Your task to perform on an android device: open chrome privacy settings Image 0: 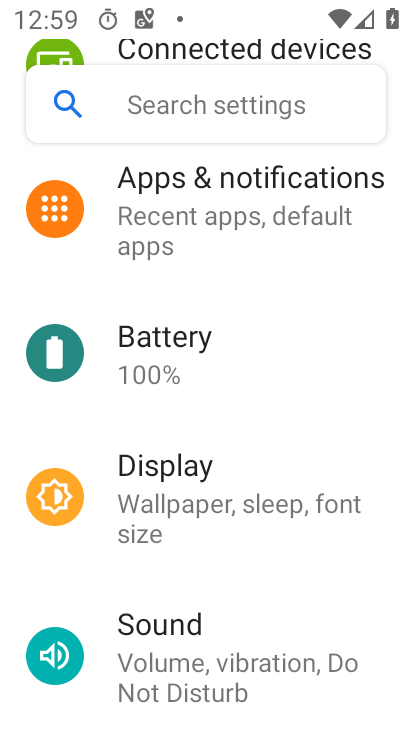
Step 0: press home button
Your task to perform on an android device: open chrome privacy settings Image 1: 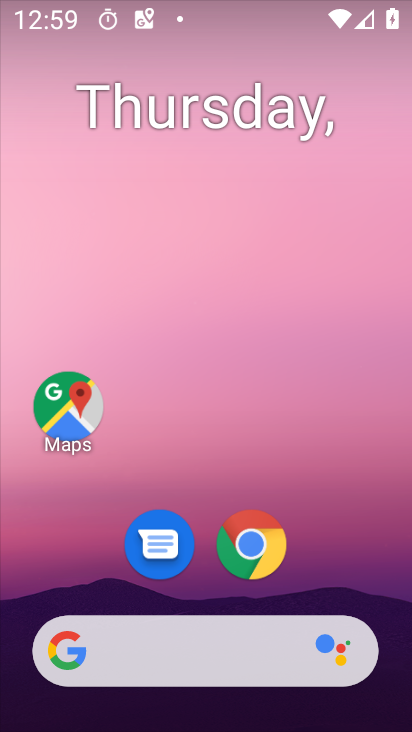
Step 1: click (266, 556)
Your task to perform on an android device: open chrome privacy settings Image 2: 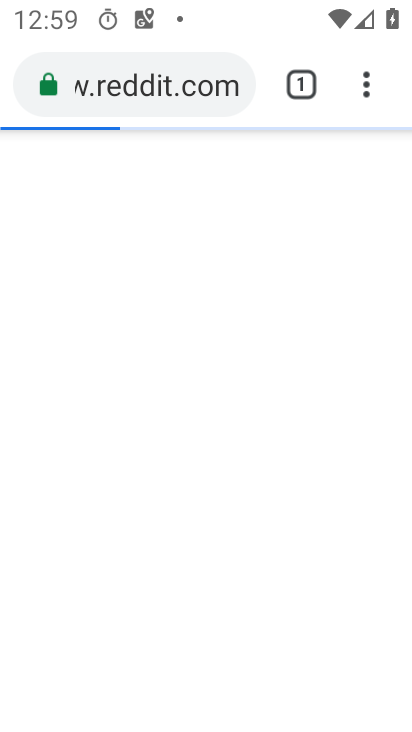
Step 2: click (360, 76)
Your task to perform on an android device: open chrome privacy settings Image 3: 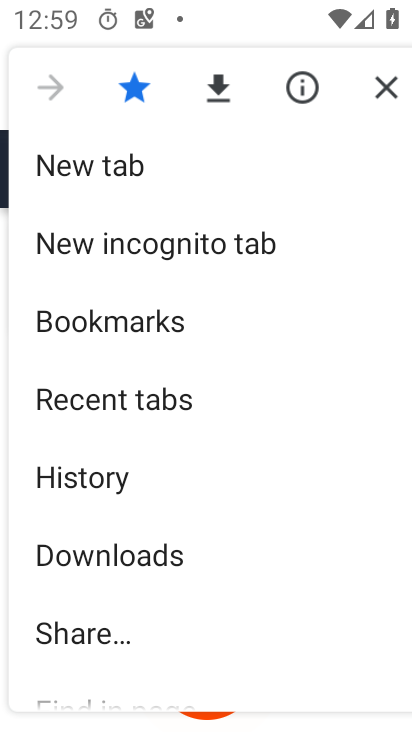
Step 3: drag from (142, 646) to (221, 177)
Your task to perform on an android device: open chrome privacy settings Image 4: 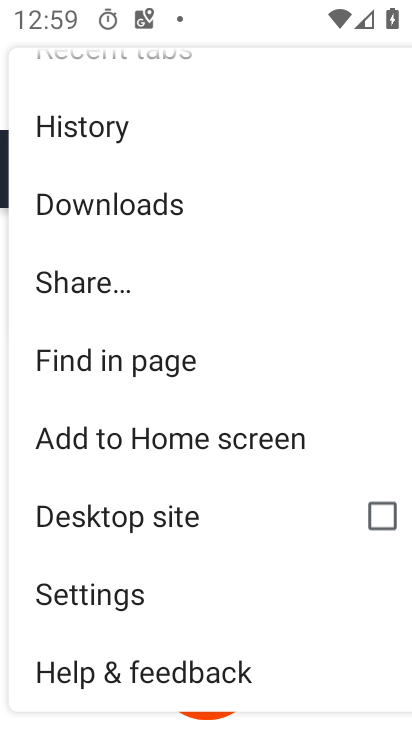
Step 4: click (95, 609)
Your task to perform on an android device: open chrome privacy settings Image 5: 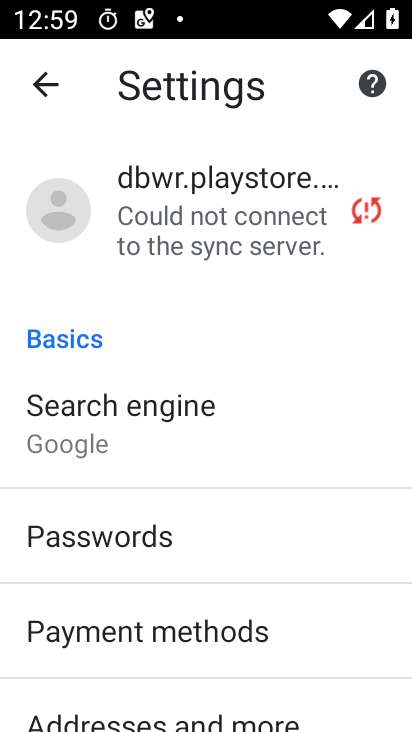
Step 5: drag from (70, 663) to (217, 249)
Your task to perform on an android device: open chrome privacy settings Image 6: 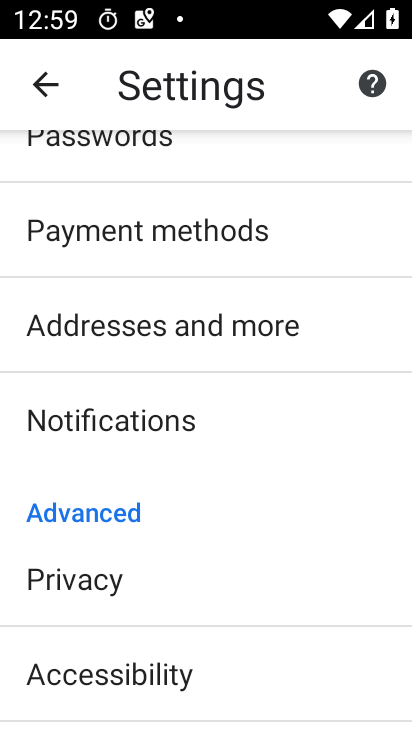
Step 6: drag from (110, 704) to (219, 323)
Your task to perform on an android device: open chrome privacy settings Image 7: 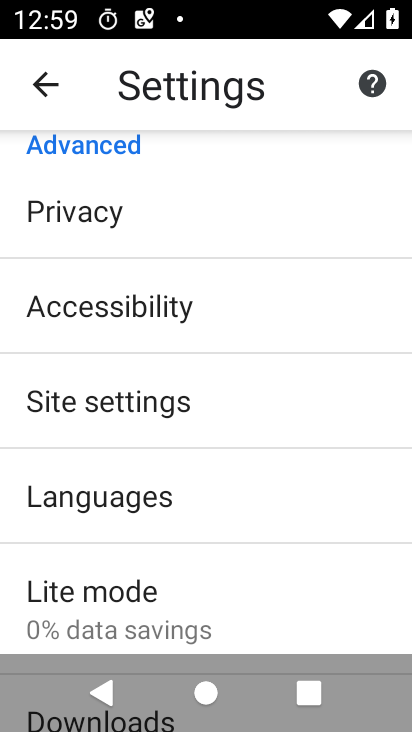
Step 7: click (77, 223)
Your task to perform on an android device: open chrome privacy settings Image 8: 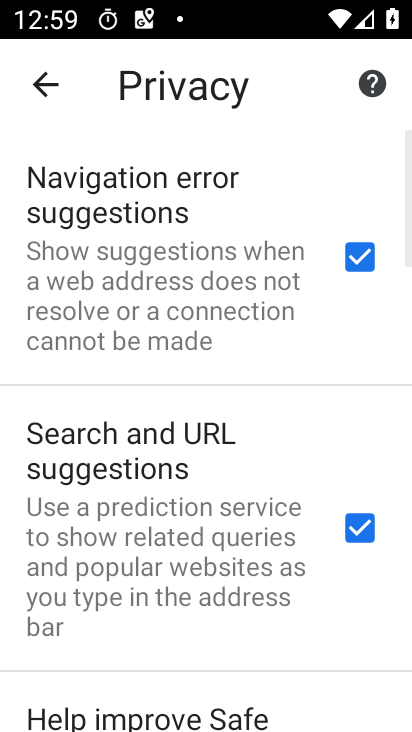
Step 8: task complete